Your task to perform on an android device: Open Yahoo.com Image 0: 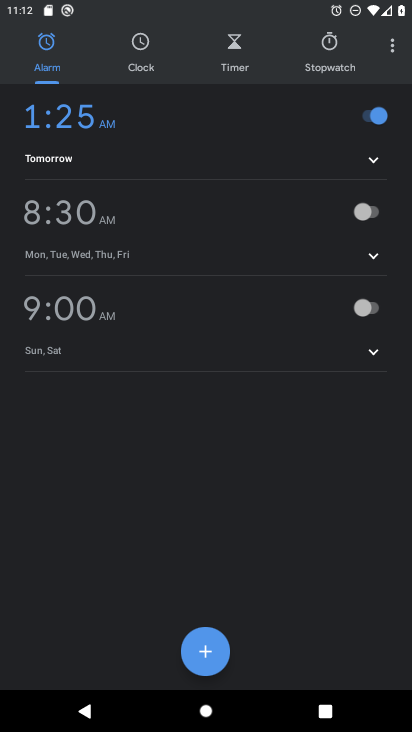
Step 0: press home button
Your task to perform on an android device: Open Yahoo.com Image 1: 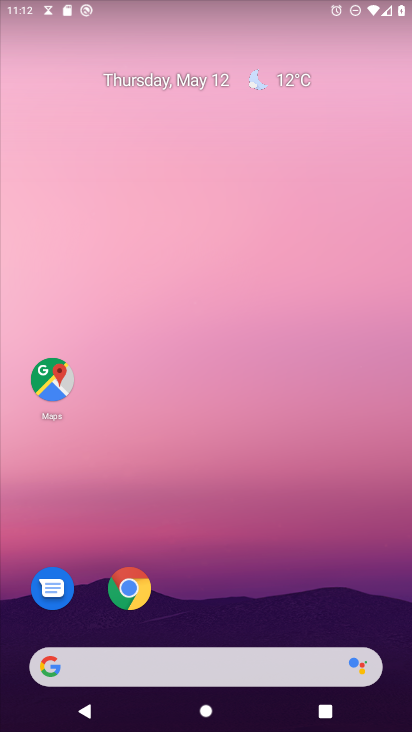
Step 1: click (130, 590)
Your task to perform on an android device: Open Yahoo.com Image 2: 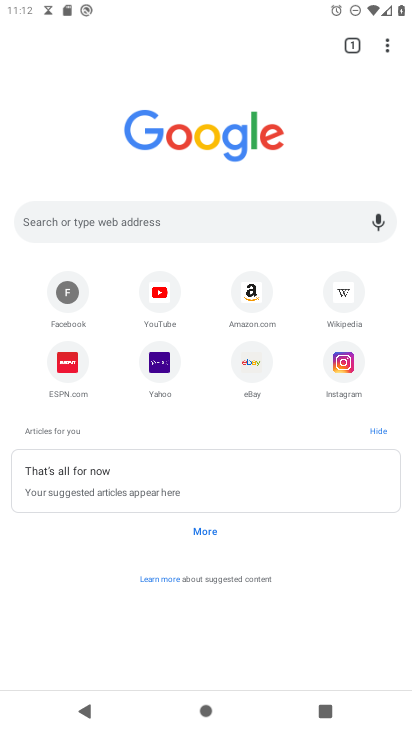
Step 2: click (164, 220)
Your task to perform on an android device: Open Yahoo.com Image 3: 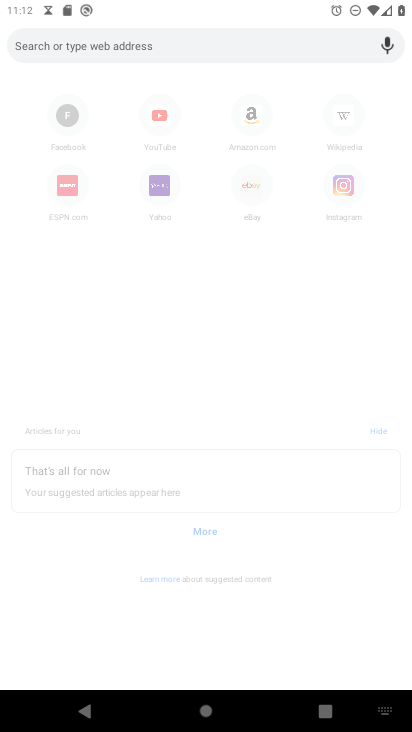
Step 3: type "Yahoo.com"
Your task to perform on an android device: Open Yahoo.com Image 4: 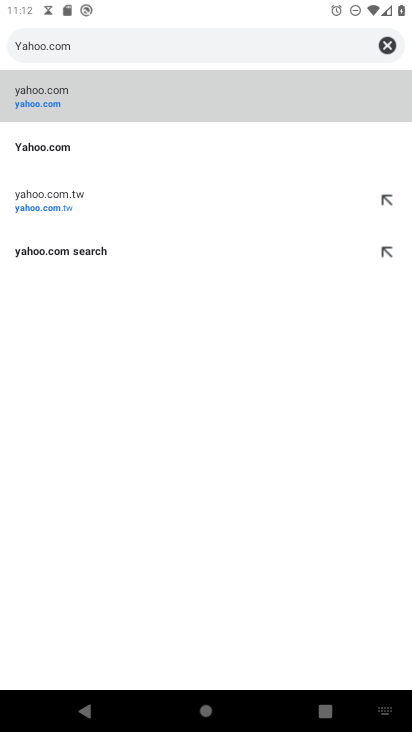
Step 4: click (50, 150)
Your task to perform on an android device: Open Yahoo.com Image 5: 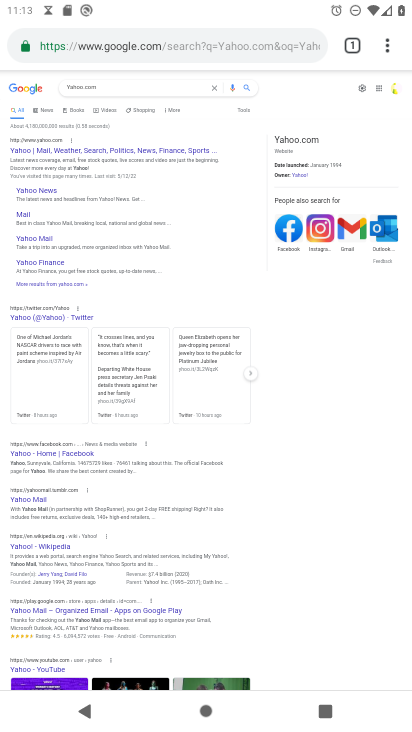
Step 5: click (58, 148)
Your task to perform on an android device: Open Yahoo.com Image 6: 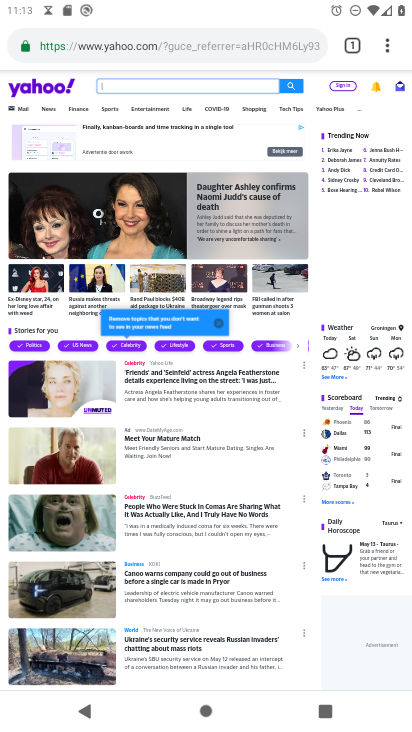
Step 6: task complete